Your task to perform on an android device: change text size in settings app Image 0: 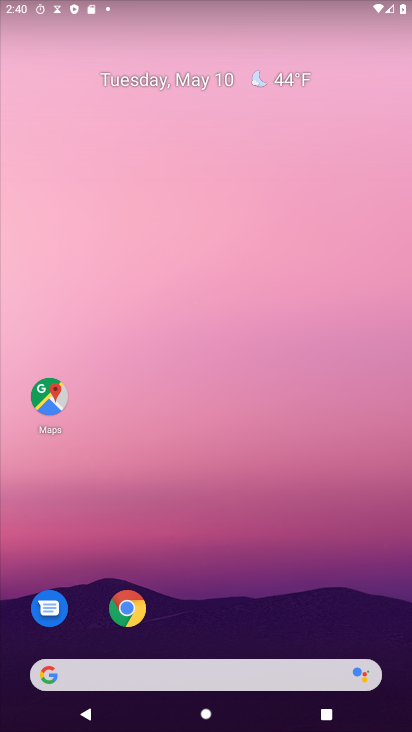
Step 0: drag from (355, 551) to (351, 40)
Your task to perform on an android device: change text size in settings app Image 1: 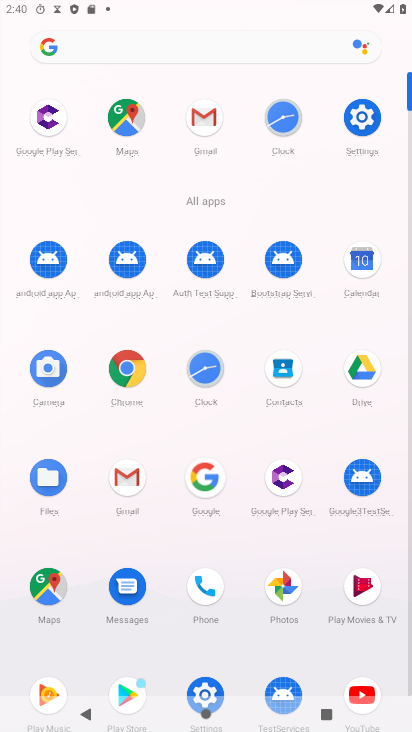
Step 1: click (356, 133)
Your task to perform on an android device: change text size in settings app Image 2: 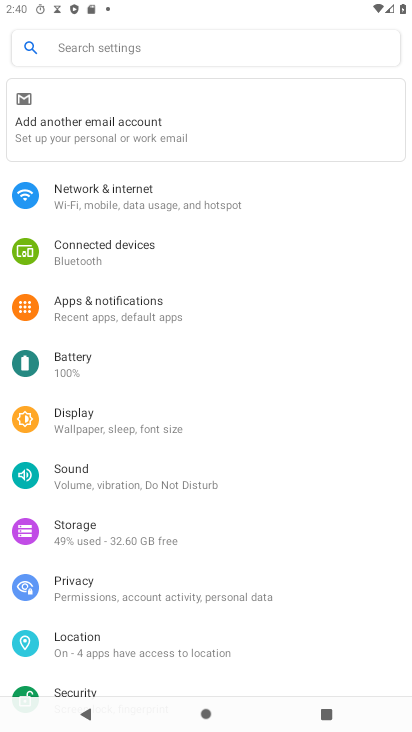
Step 2: click (79, 419)
Your task to perform on an android device: change text size in settings app Image 3: 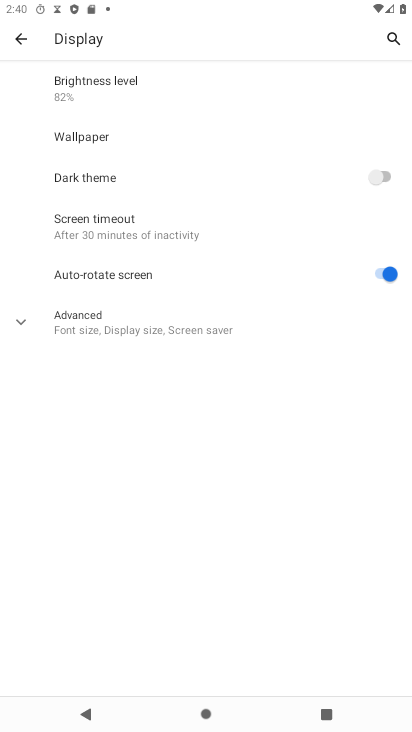
Step 3: click (19, 333)
Your task to perform on an android device: change text size in settings app Image 4: 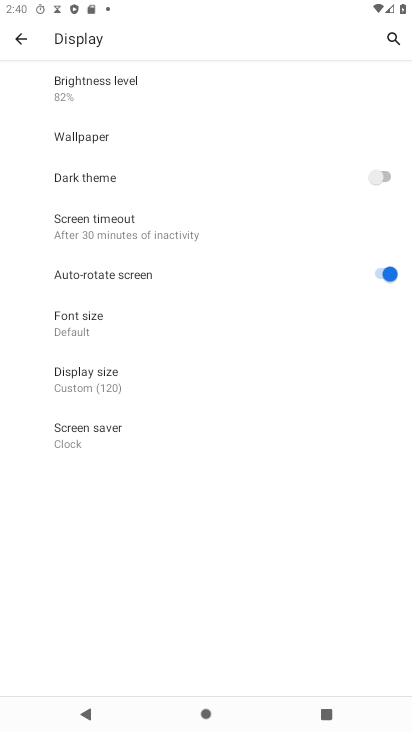
Step 4: click (87, 319)
Your task to perform on an android device: change text size in settings app Image 5: 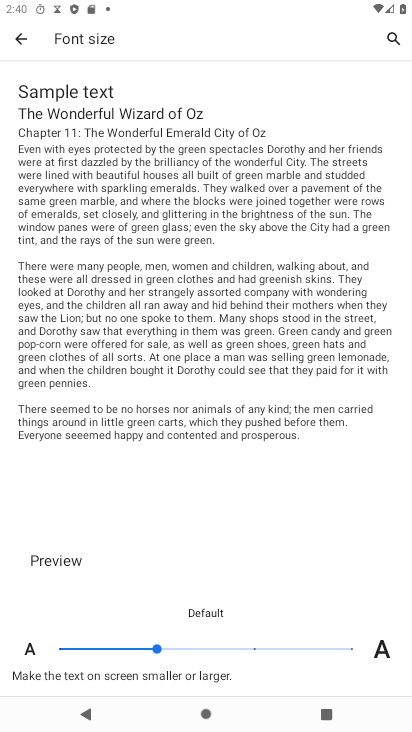
Step 5: click (248, 650)
Your task to perform on an android device: change text size in settings app Image 6: 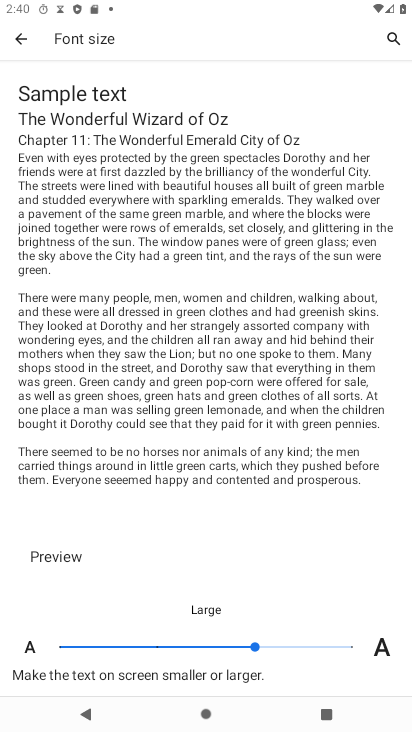
Step 6: task complete